Your task to perform on an android device: turn on location history Image 0: 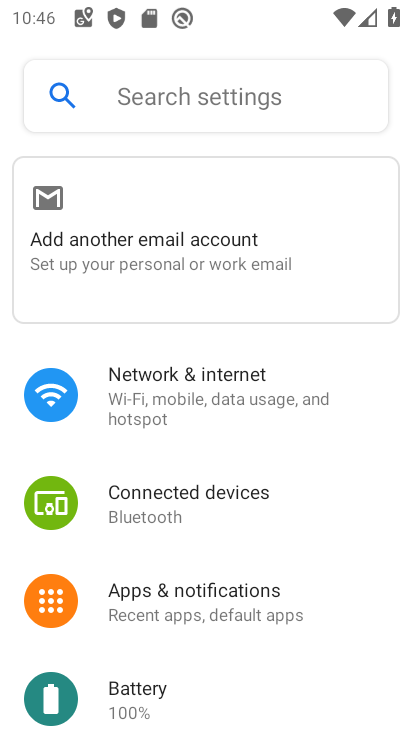
Step 0: drag from (223, 667) to (276, 105)
Your task to perform on an android device: turn on location history Image 1: 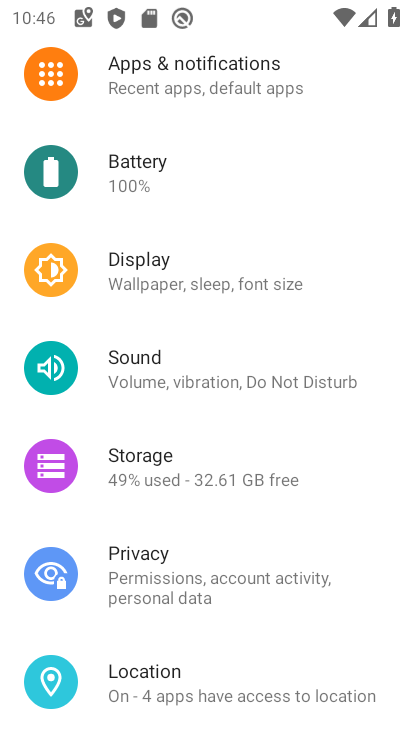
Step 1: click (176, 683)
Your task to perform on an android device: turn on location history Image 2: 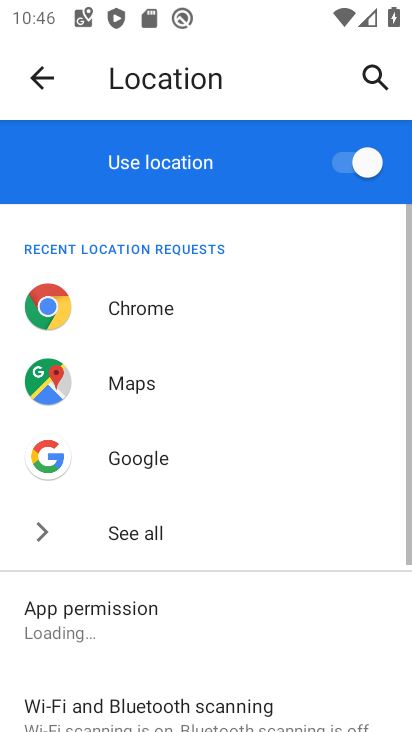
Step 2: drag from (174, 676) to (265, 151)
Your task to perform on an android device: turn on location history Image 3: 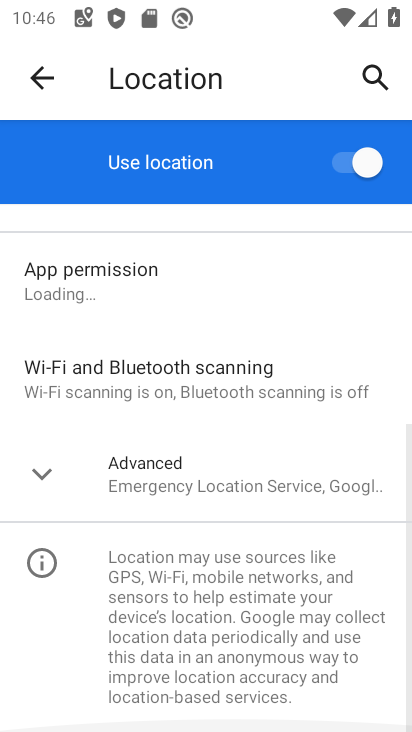
Step 3: click (133, 476)
Your task to perform on an android device: turn on location history Image 4: 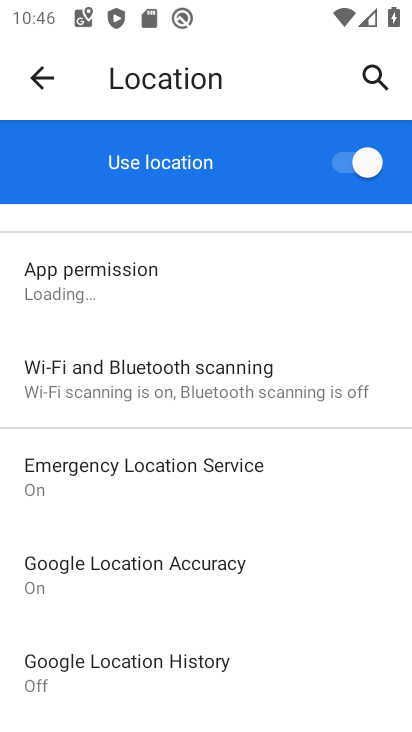
Step 4: click (170, 666)
Your task to perform on an android device: turn on location history Image 5: 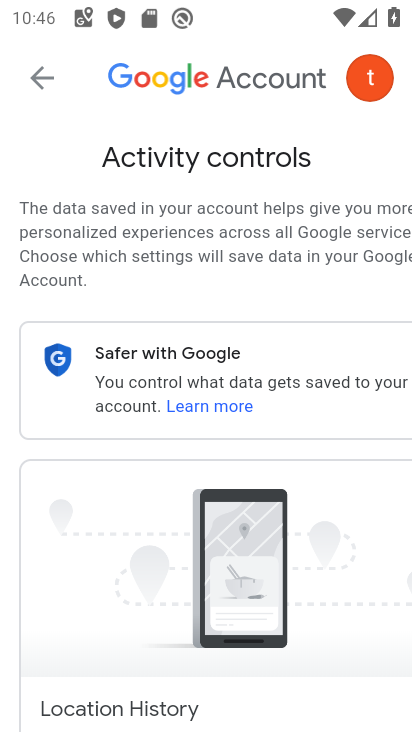
Step 5: task complete